Your task to perform on an android device: turn on data saver in the chrome app Image 0: 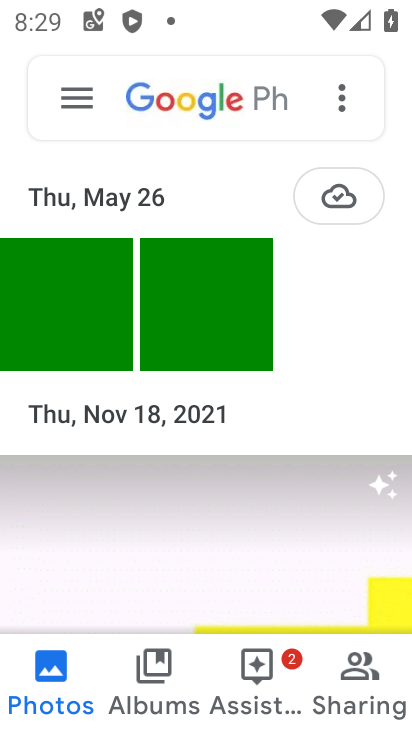
Step 0: press home button
Your task to perform on an android device: turn on data saver in the chrome app Image 1: 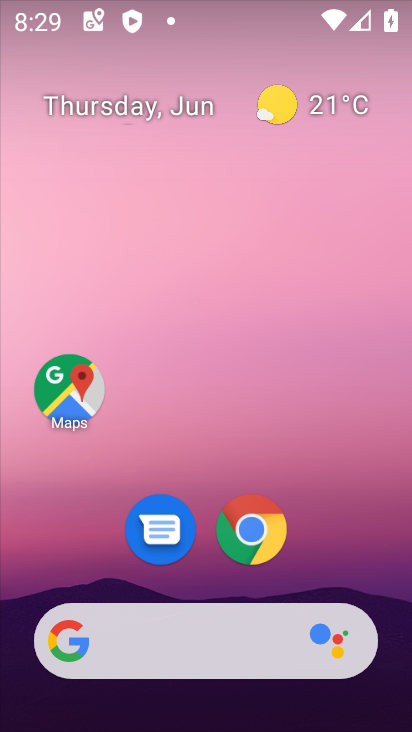
Step 1: click (251, 523)
Your task to perform on an android device: turn on data saver in the chrome app Image 2: 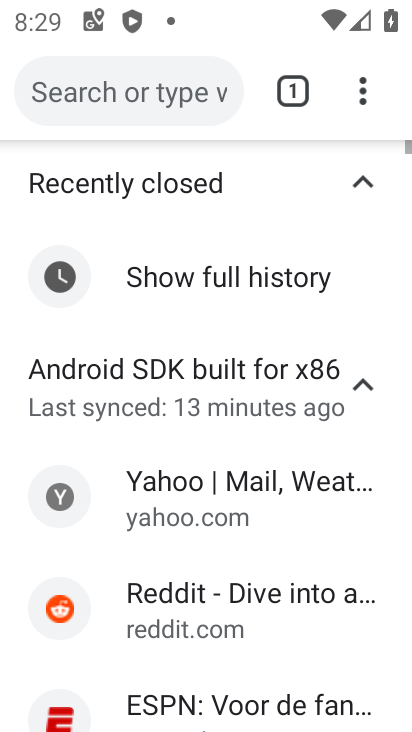
Step 2: click (360, 91)
Your task to perform on an android device: turn on data saver in the chrome app Image 3: 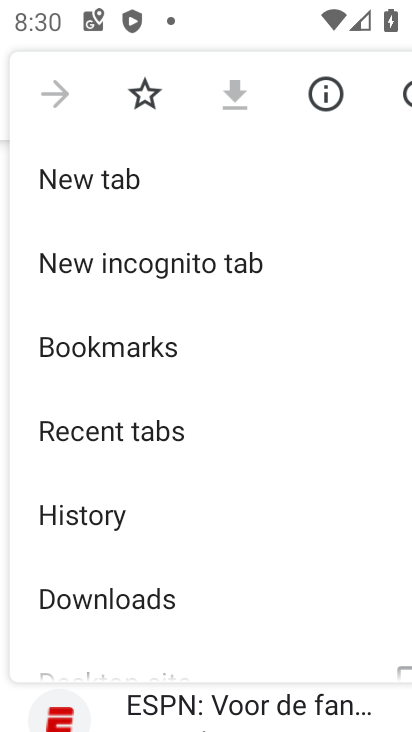
Step 3: drag from (216, 554) to (208, 250)
Your task to perform on an android device: turn on data saver in the chrome app Image 4: 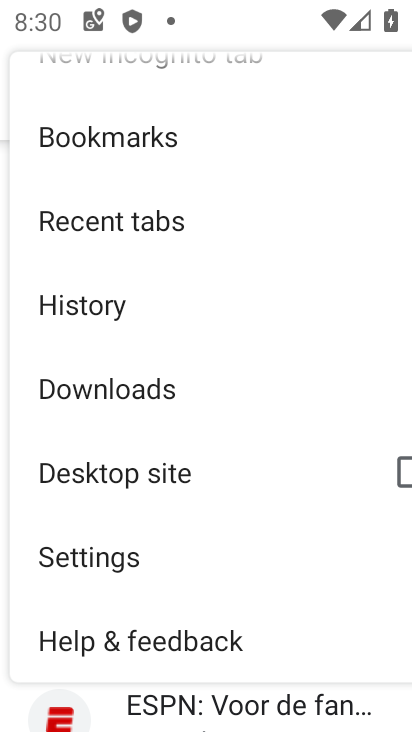
Step 4: click (94, 556)
Your task to perform on an android device: turn on data saver in the chrome app Image 5: 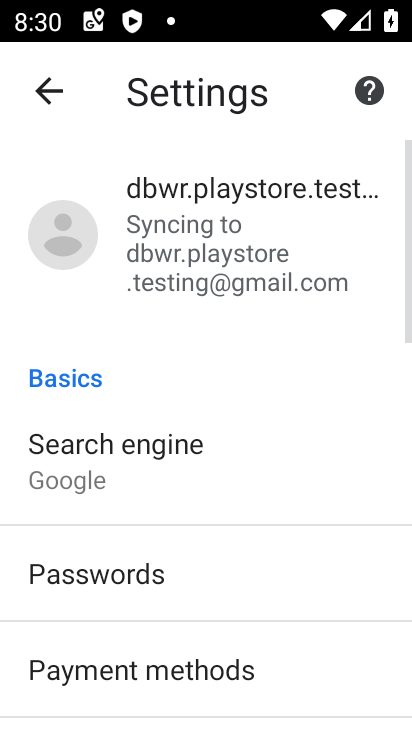
Step 5: drag from (239, 591) to (217, 365)
Your task to perform on an android device: turn on data saver in the chrome app Image 6: 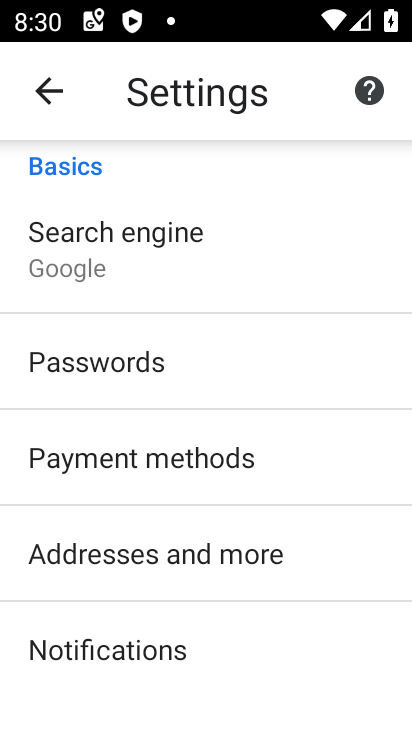
Step 6: drag from (297, 630) to (246, 167)
Your task to perform on an android device: turn on data saver in the chrome app Image 7: 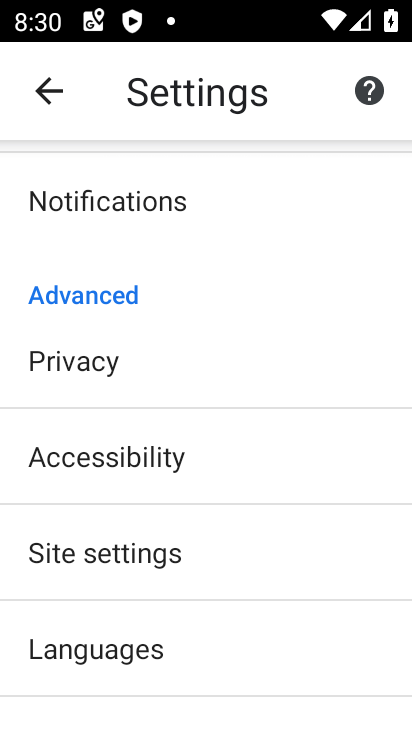
Step 7: drag from (203, 606) to (161, 322)
Your task to perform on an android device: turn on data saver in the chrome app Image 8: 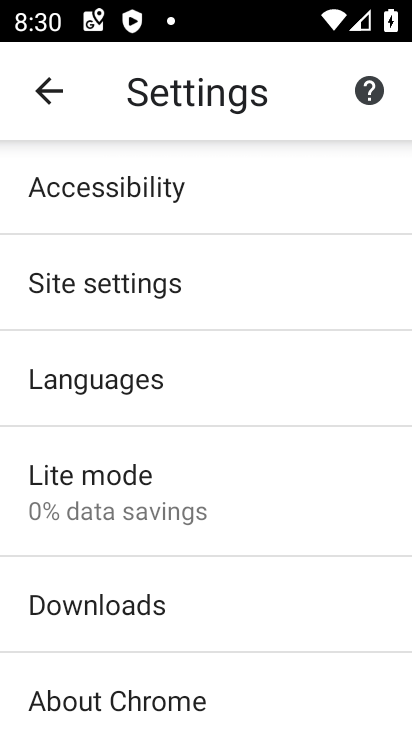
Step 8: click (92, 482)
Your task to perform on an android device: turn on data saver in the chrome app Image 9: 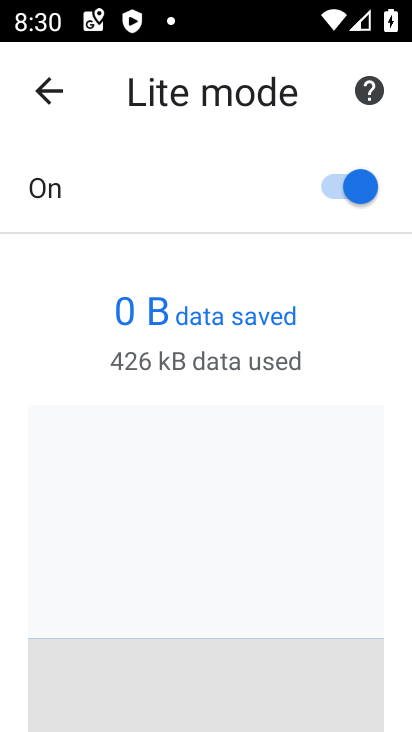
Step 9: task complete